Your task to perform on an android device: Go to Reddit.com Image 0: 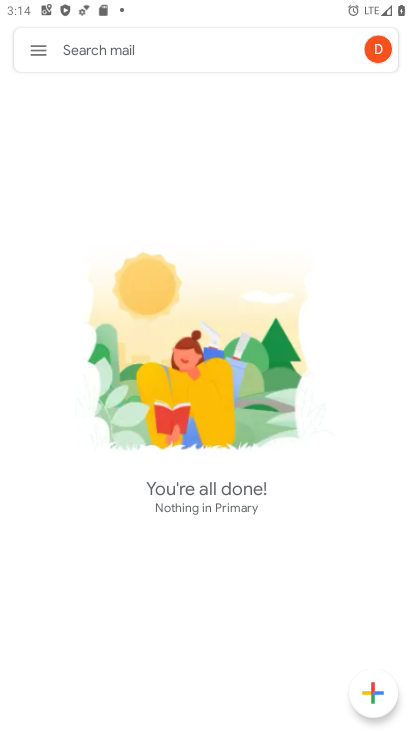
Step 0: press back button
Your task to perform on an android device: Go to Reddit.com Image 1: 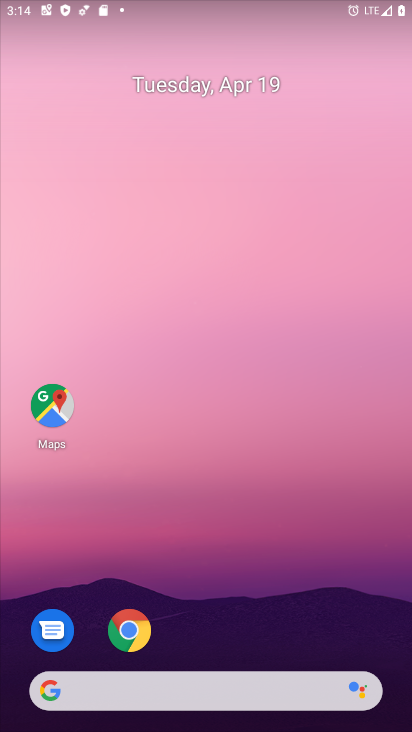
Step 1: click (133, 631)
Your task to perform on an android device: Go to Reddit.com Image 2: 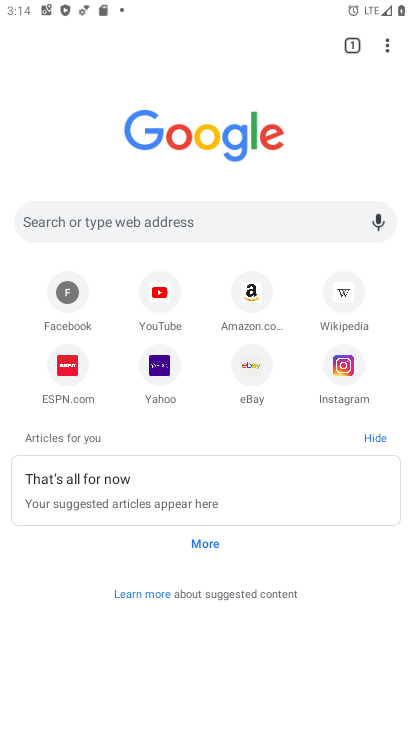
Step 2: click (199, 219)
Your task to perform on an android device: Go to Reddit.com Image 3: 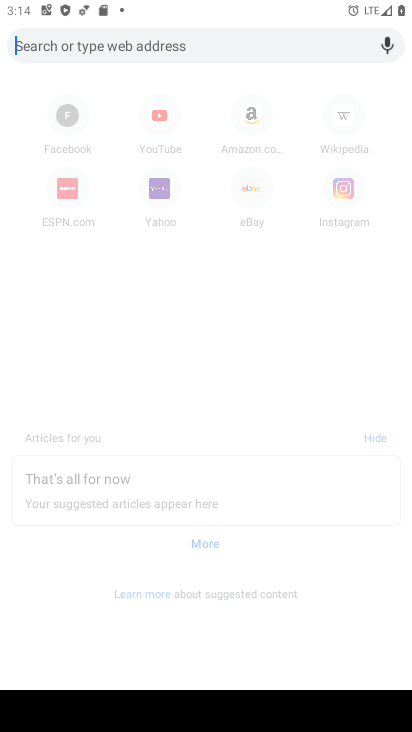
Step 3: type "Reddit.com"
Your task to perform on an android device: Go to Reddit.com Image 4: 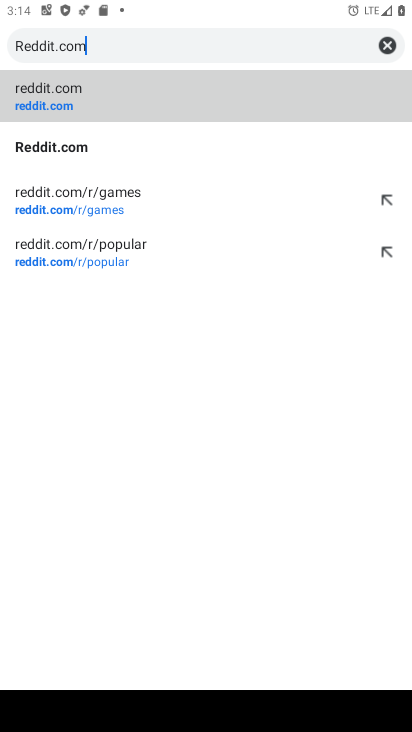
Step 4: click (68, 147)
Your task to perform on an android device: Go to Reddit.com Image 5: 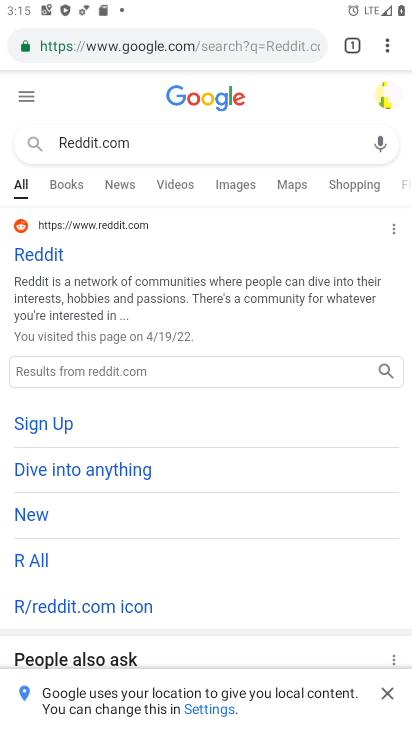
Step 5: click (44, 256)
Your task to perform on an android device: Go to Reddit.com Image 6: 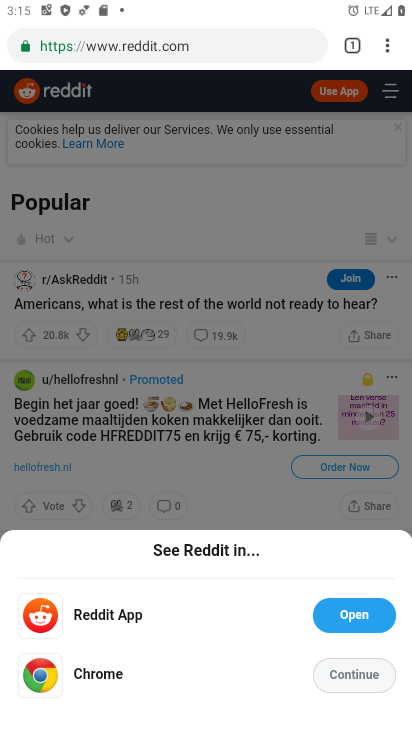
Step 6: click (301, 215)
Your task to perform on an android device: Go to Reddit.com Image 7: 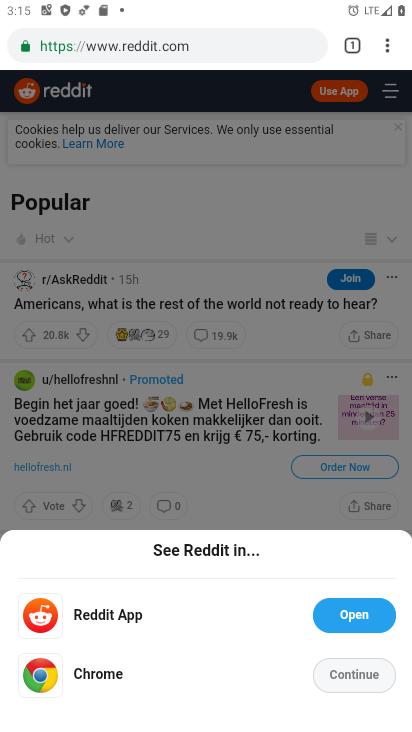
Step 7: task complete